Your task to perform on an android device: Open accessibility settings Image 0: 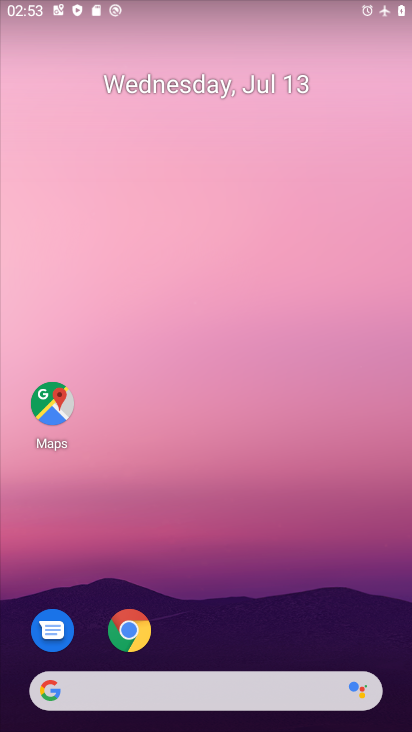
Step 0: drag from (228, 638) to (190, 214)
Your task to perform on an android device: Open accessibility settings Image 1: 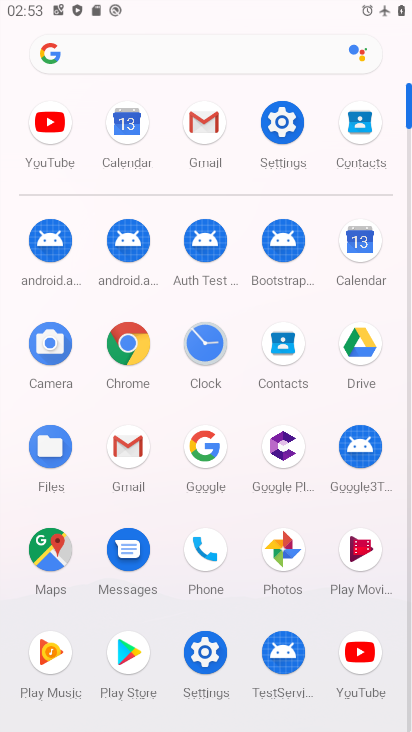
Step 1: click (280, 129)
Your task to perform on an android device: Open accessibility settings Image 2: 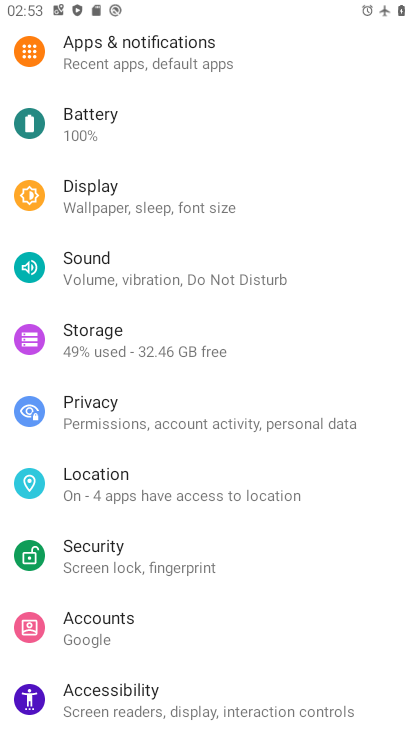
Step 2: click (167, 687)
Your task to perform on an android device: Open accessibility settings Image 3: 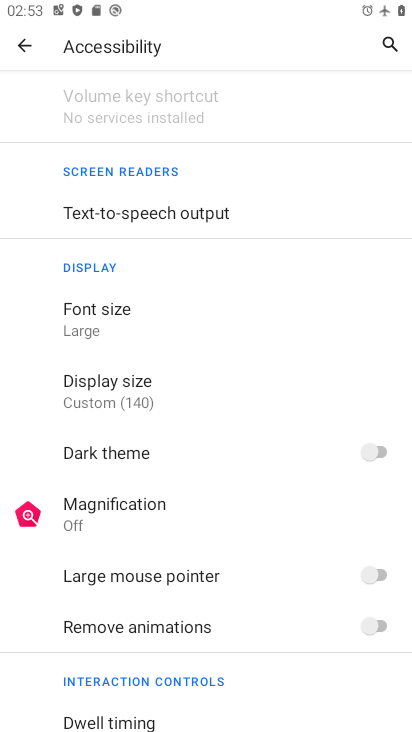
Step 3: task complete